Your task to perform on an android device: turn pop-ups on in chrome Image 0: 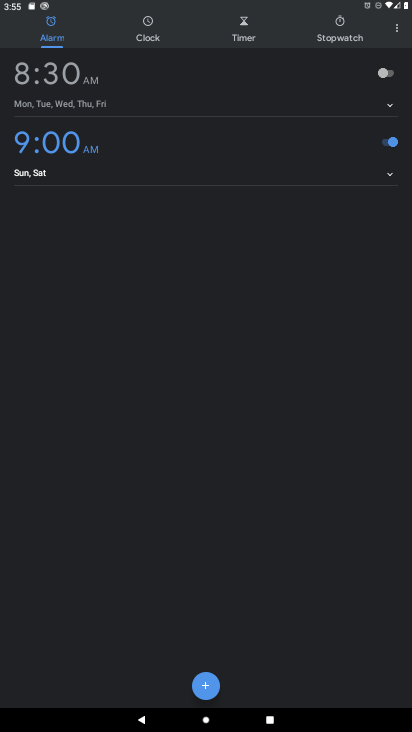
Step 0: press home button
Your task to perform on an android device: turn pop-ups on in chrome Image 1: 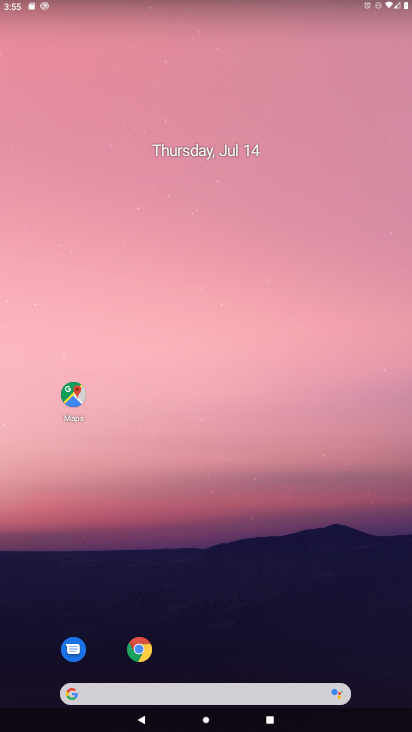
Step 1: drag from (209, 640) to (191, 132)
Your task to perform on an android device: turn pop-ups on in chrome Image 2: 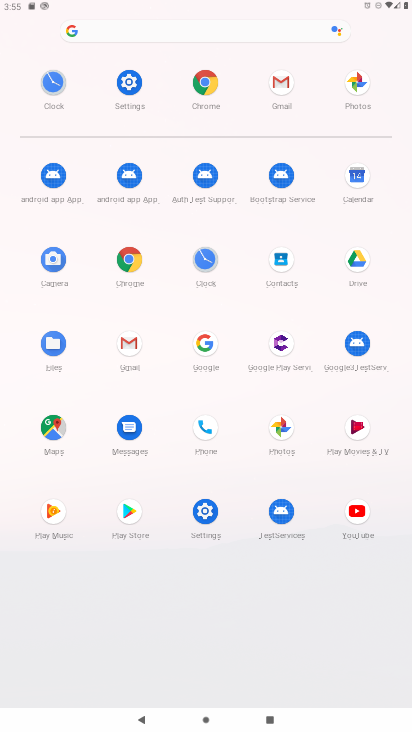
Step 2: click (139, 269)
Your task to perform on an android device: turn pop-ups on in chrome Image 3: 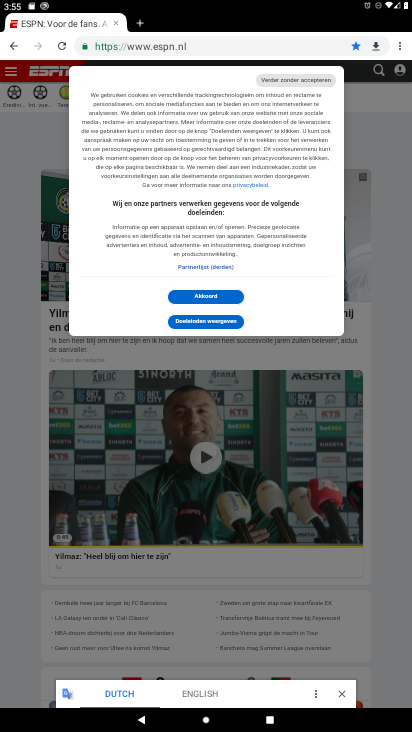
Step 3: click (399, 44)
Your task to perform on an android device: turn pop-ups on in chrome Image 4: 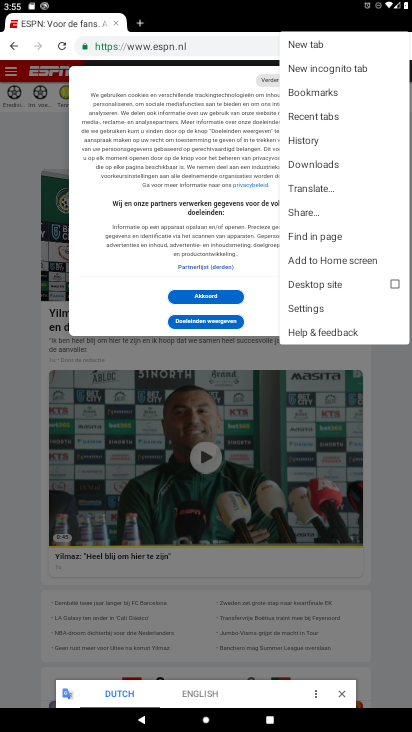
Step 4: click (308, 309)
Your task to perform on an android device: turn pop-ups on in chrome Image 5: 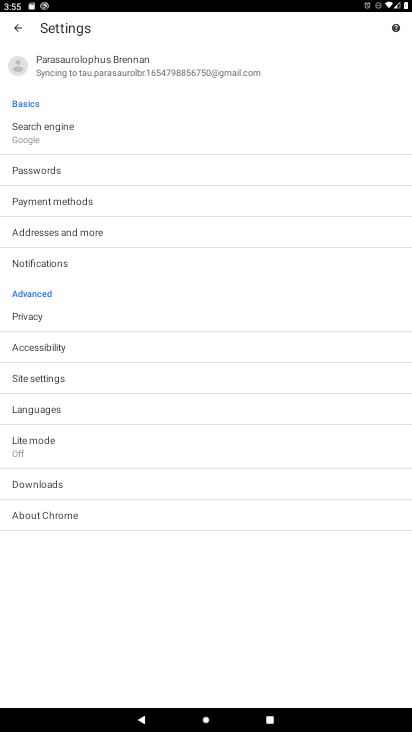
Step 5: click (57, 377)
Your task to perform on an android device: turn pop-ups on in chrome Image 6: 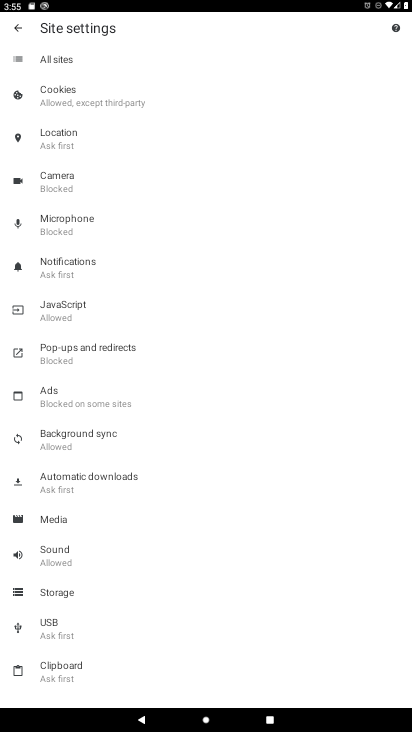
Step 6: click (116, 351)
Your task to perform on an android device: turn pop-ups on in chrome Image 7: 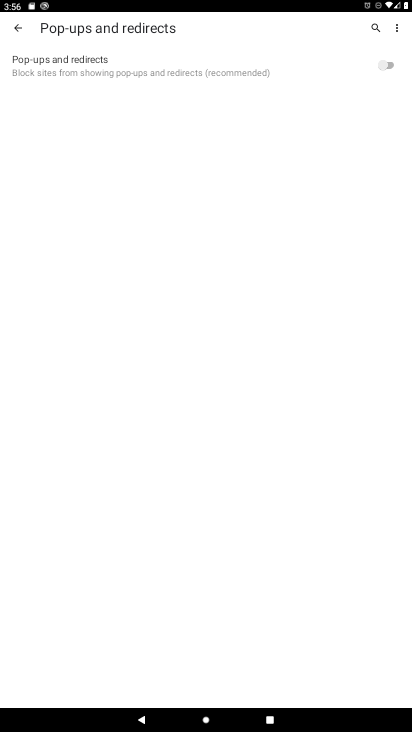
Step 7: click (369, 61)
Your task to perform on an android device: turn pop-ups on in chrome Image 8: 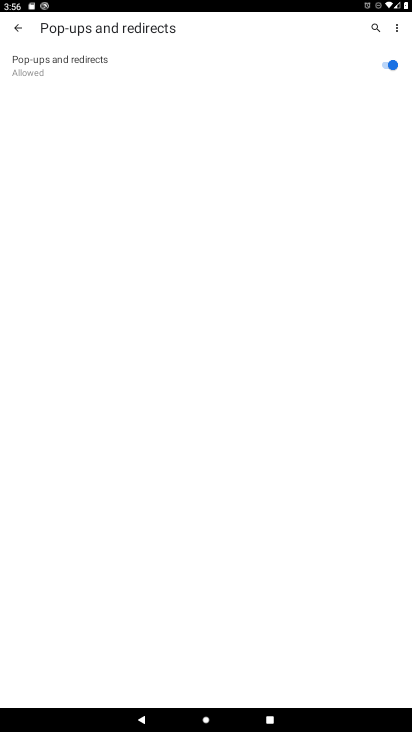
Step 8: task complete